Your task to perform on an android device: Go to Reddit.com Image 0: 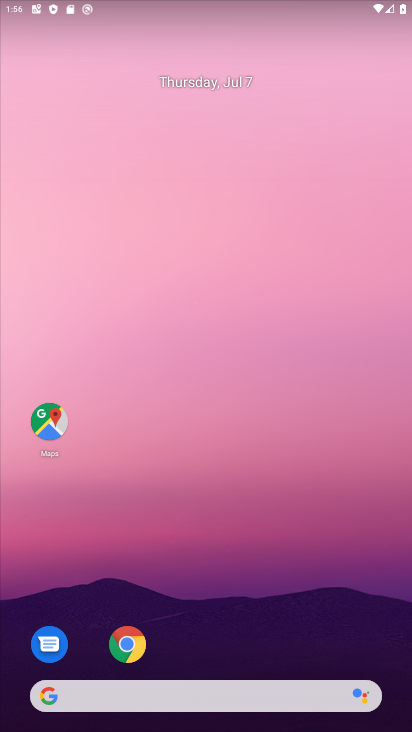
Step 0: click (126, 653)
Your task to perform on an android device: Go to Reddit.com Image 1: 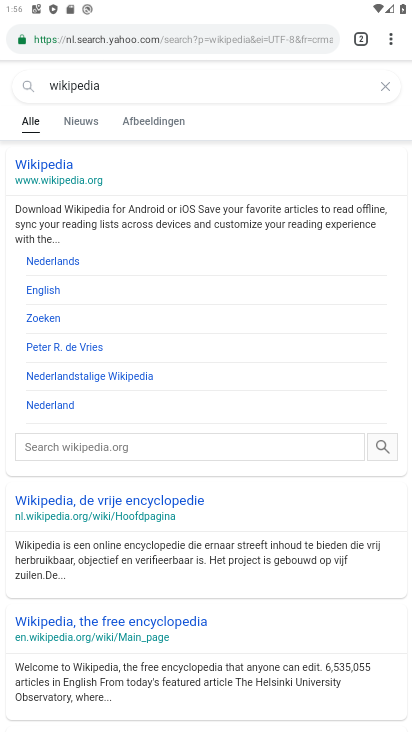
Step 1: click (197, 43)
Your task to perform on an android device: Go to Reddit.com Image 2: 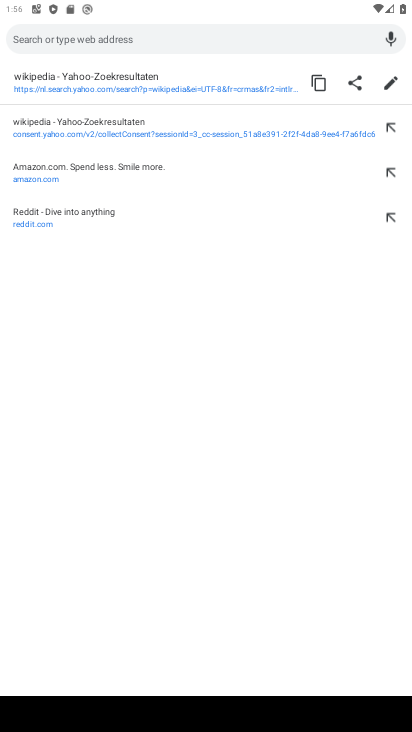
Step 2: type "reddit.com"
Your task to perform on an android device: Go to Reddit.com Image 3: 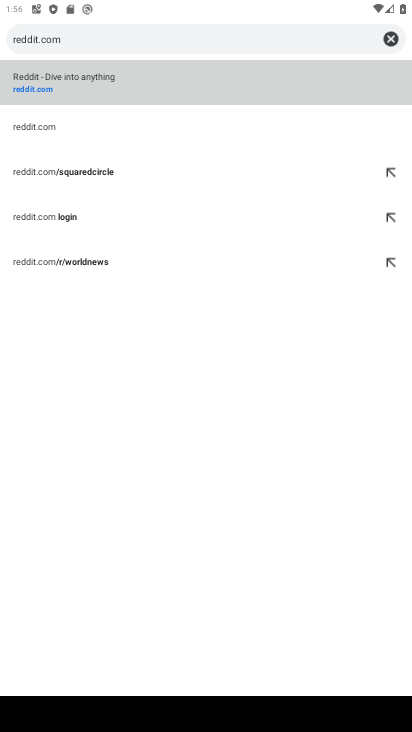
Step 3: click (151, 92)
Your task to perform on an android device: Go to Reddit.com Image 4: 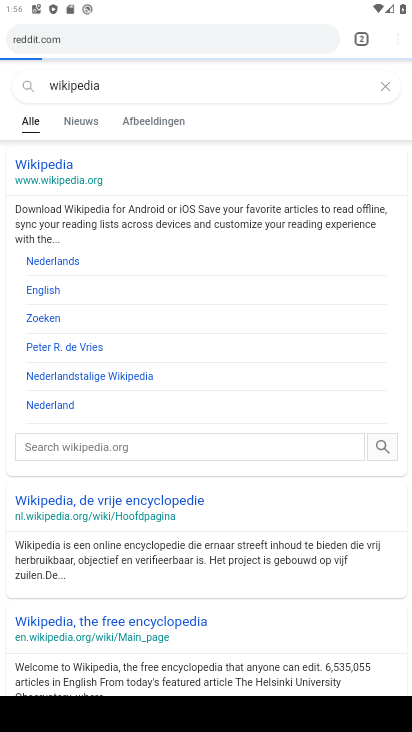
Step 4: click (151, 92)
Your task to perform on an android device: Go to Reddit.com Image 5: 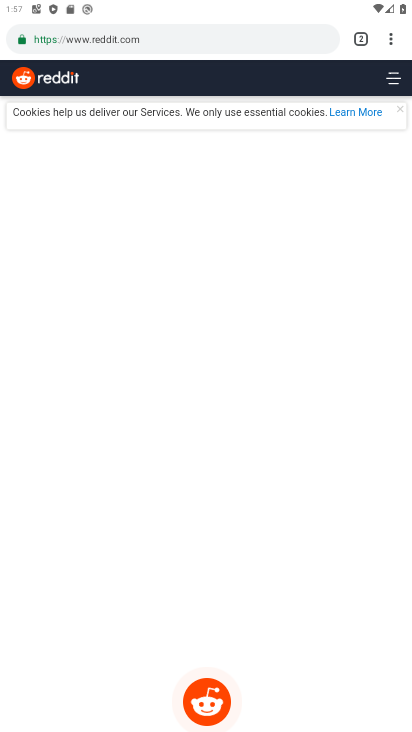
Step 5: task complete